Your task to perform on an android device: delete location history Image 0: 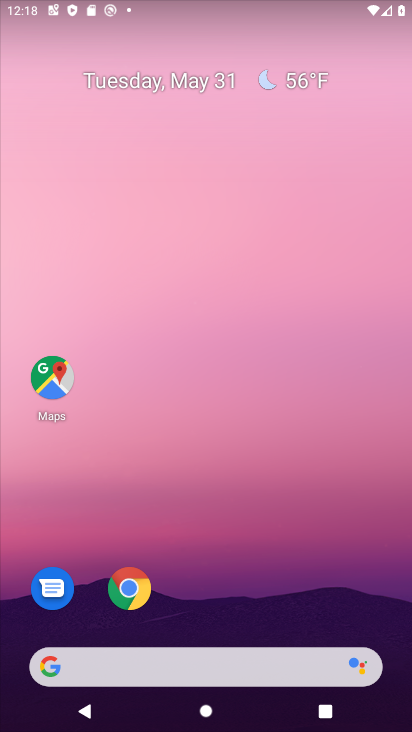
Step 0: drag from (184, 629) to (201, 104)
Your task to perform on an android device: delete location history Image 1: 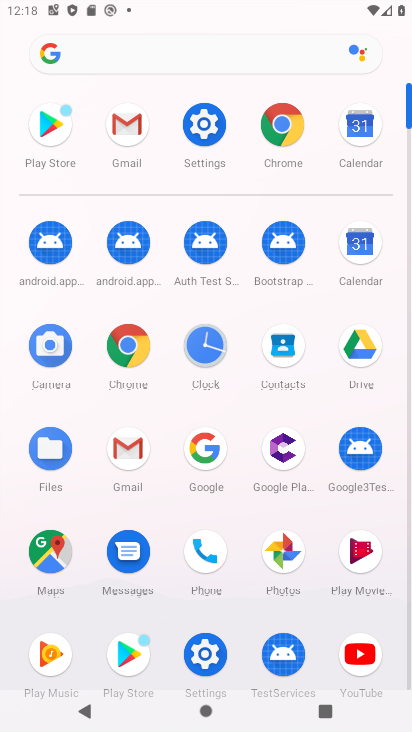
Step 1: click (200, 130)
Your task to perform on an android device: delete location history Image 2: 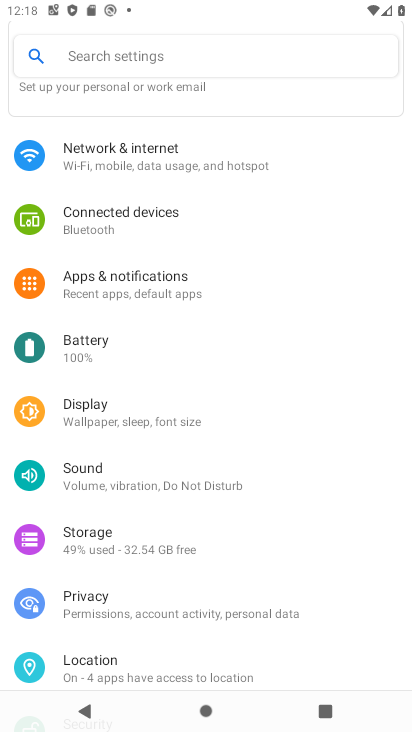
Step 2: click (90, 671)
Your task to perform on an android device: delete location history Image 3: 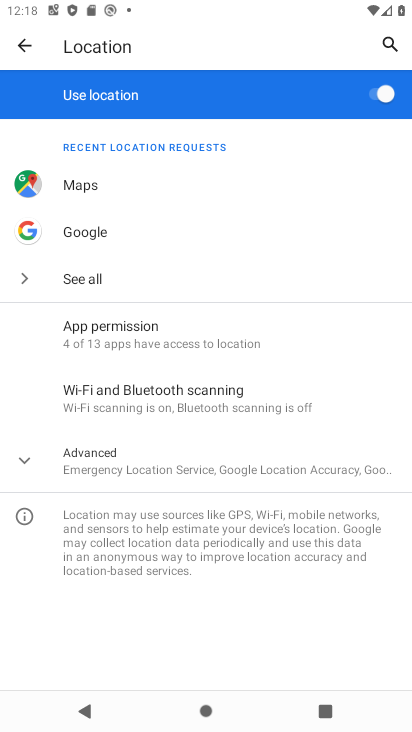
Step 3: click (97, 453)
Your task to perform on an android device: delete location history Image 4: 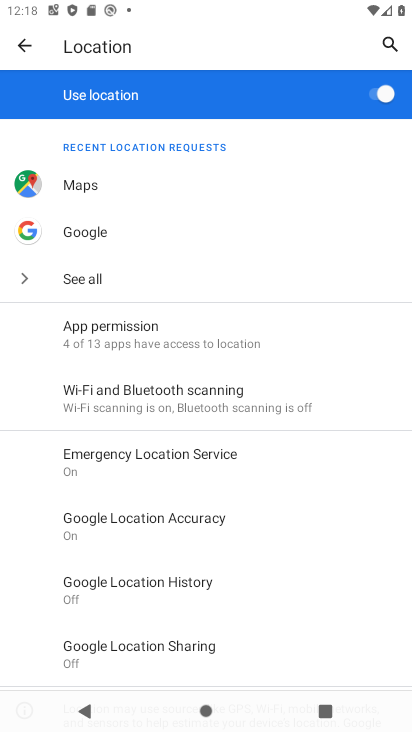
Step 4: click (179, 590)
Your task to perform on an android device: delete location history Image 5: 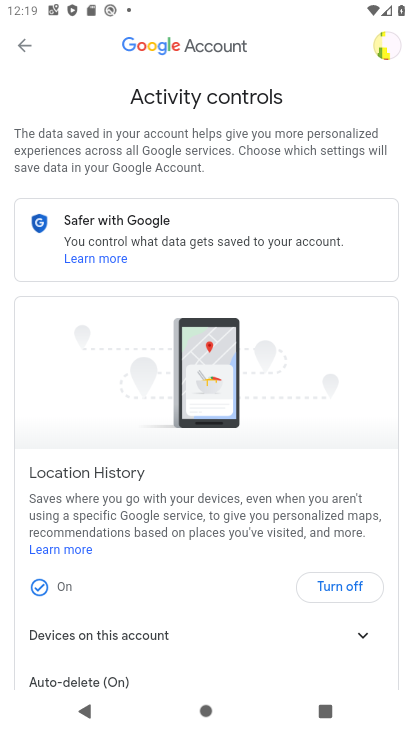
Step 5: drag from (234, 596) to (272, 171)
Your task to perform on an android device: delete location history Image 6: 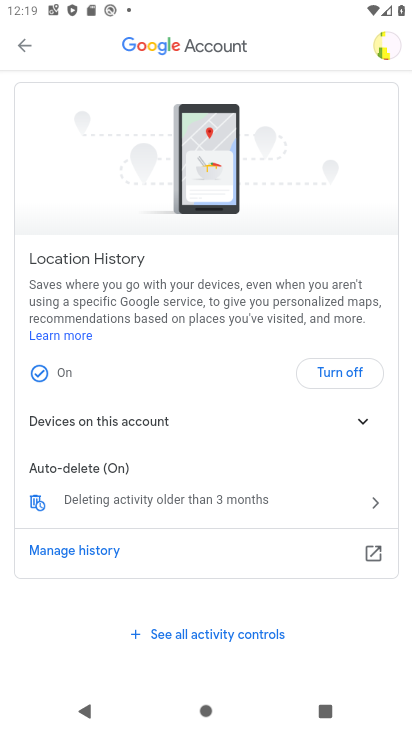
Step 6: click (73, 555)
Your task to perform on an android device: delete location history Image 7: 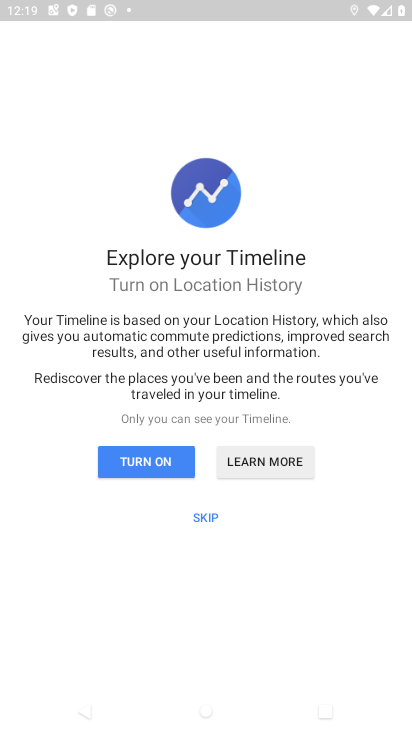
Step 7: click (210, 520)
Your task to perform on an android device: delete location history Image 8: 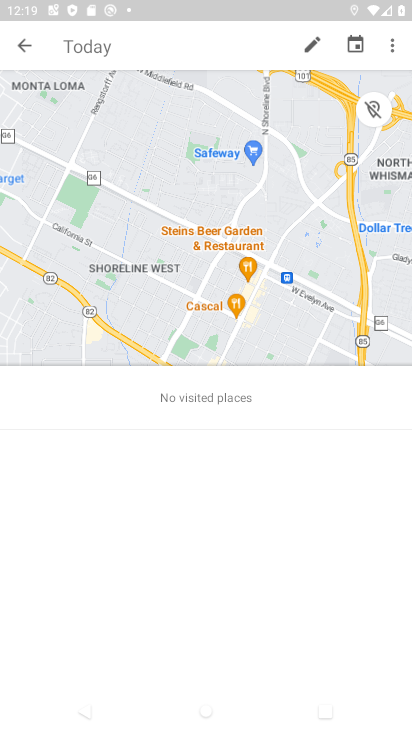
Step 8: click (395, 45)
Your task to perform on an android device: delete location history Image 9: 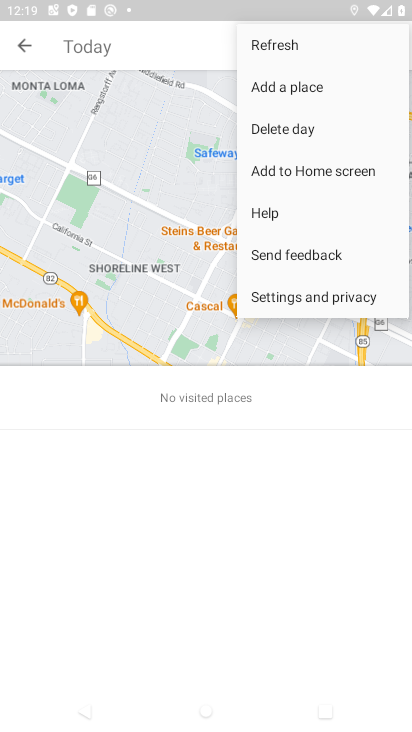
Step 9: click (300, 302)
Your task to perform on an android device: delete location history Image 10: 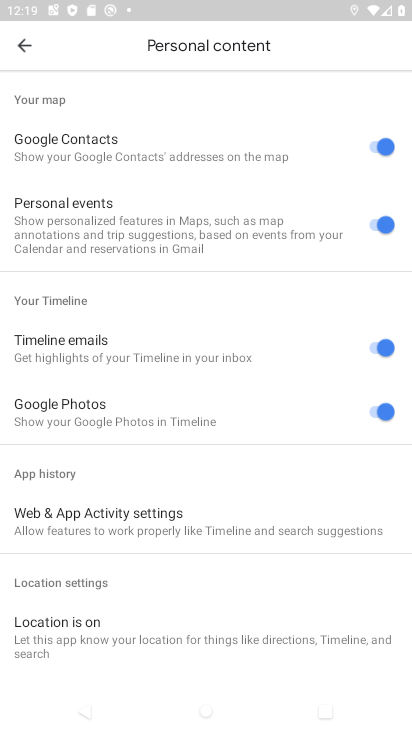
Step 10: drag from (96, 637) to (158, 246)
Your task to perform on an android device: delete location history Image 11: 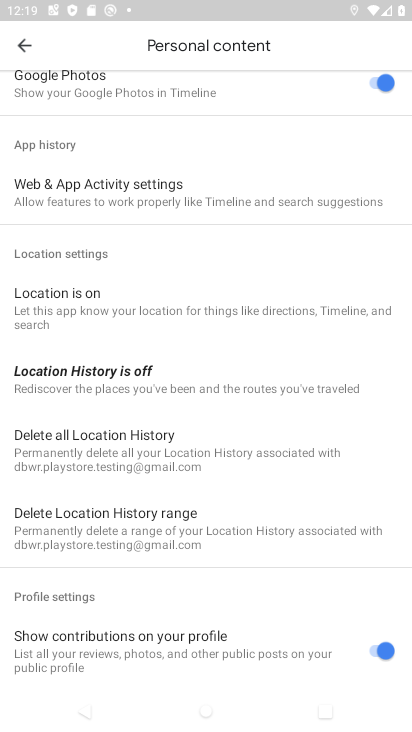
Step 11: click (135, 474)
Your task to perform on an android device: delete location history Image 12: 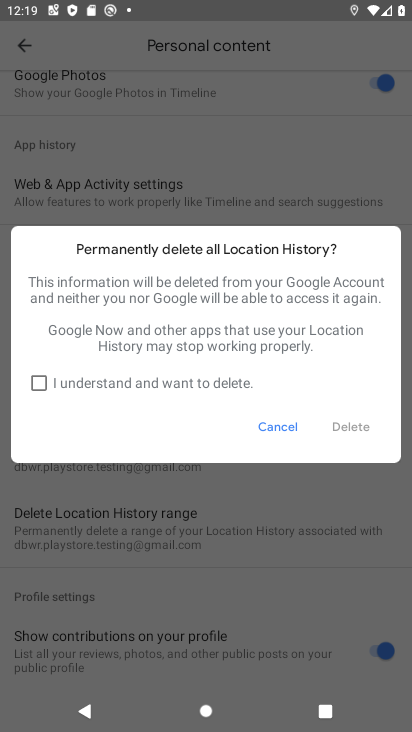
Step 12: click (37, 381)
Your task to perform on an android device: delete location history Image 13: 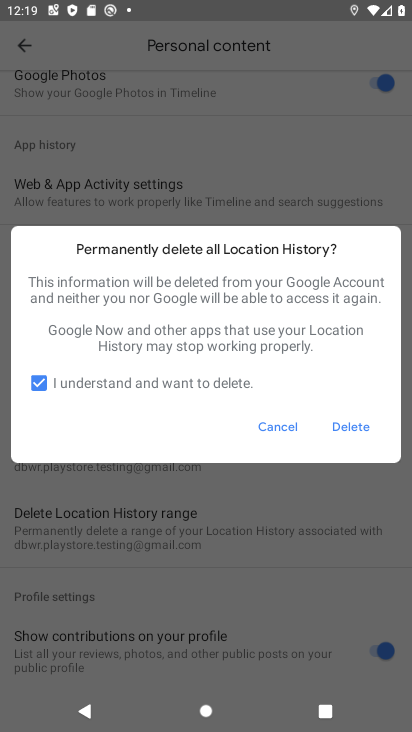
Step 13: click (352, 427)
Your task to perform on an android device: delete location history Image 14: 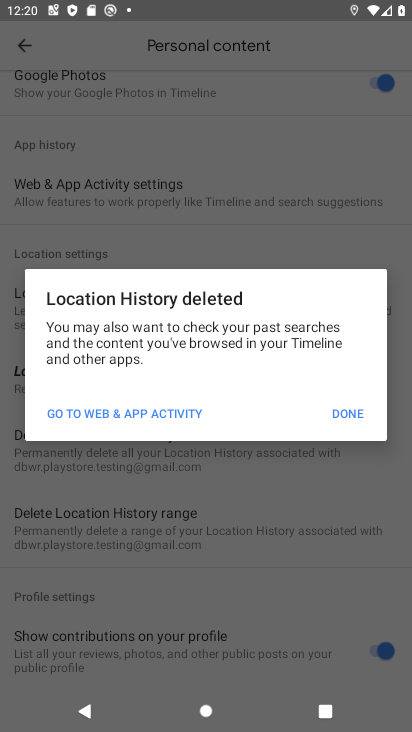
Step 14: task complete